Your task to perform on an android device: Search for good BBQ restaurants Image 0: 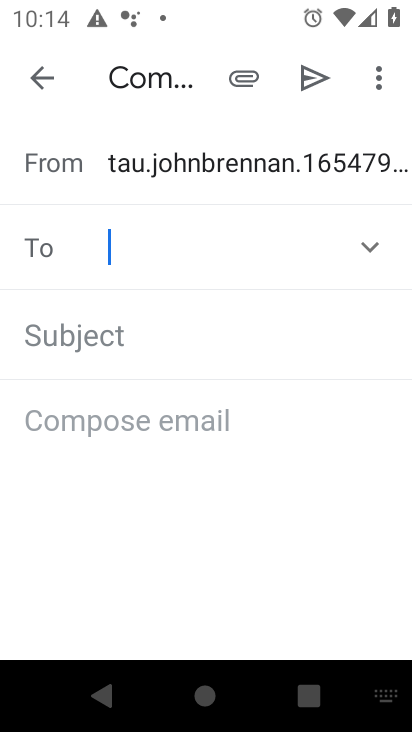
Step 0: press home button
Your task to perform on an android device: Search for good BBQ restaurants Image 1: 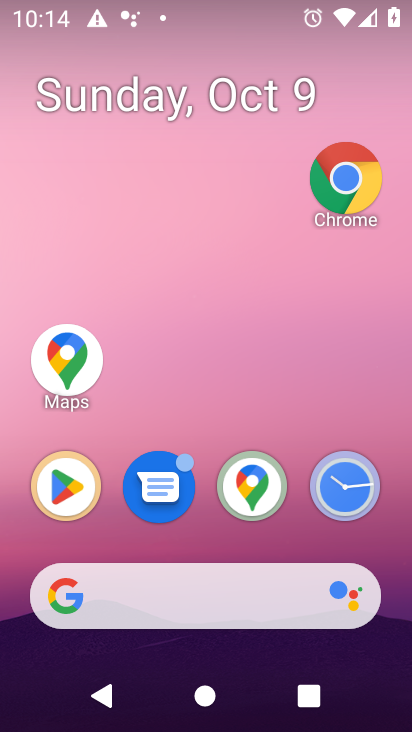
Step 1: drag from (396, 717) to (166, 729)
Your task to perform on an android device: Search for good BBQ restaurants Image 2: 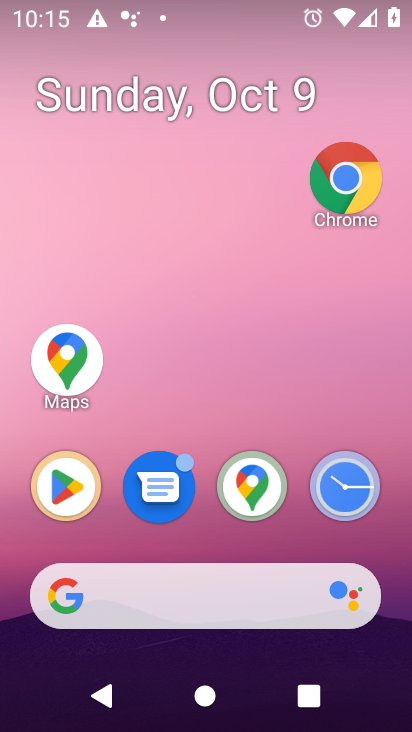
Step 2: drag from (289, 537) to (351, 83)
Your task to perform on an android device: Search for good BBQ restaurants Image 3: 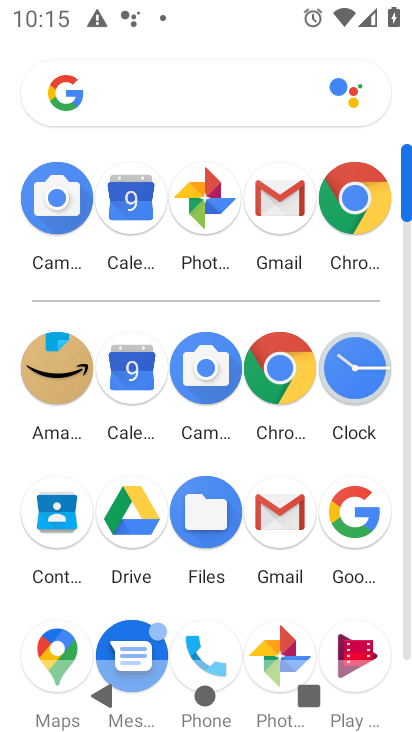
Step 3: drag from (302, 515) to (342, 313)
Your task to perform on an android device: Search for good BBQ restaurants Image 4: 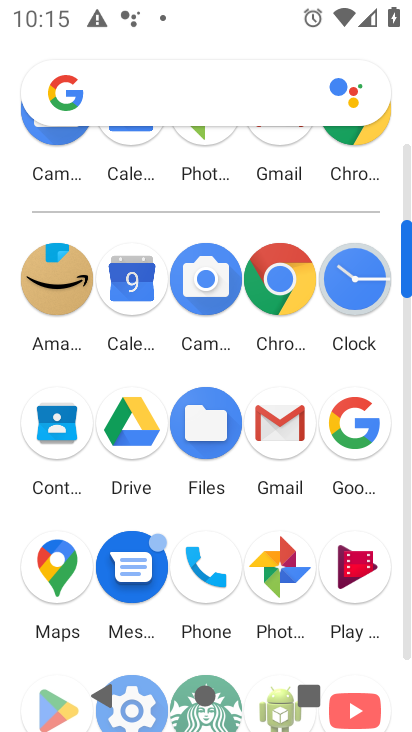
Step 4: click (364, 421)
Your task to perform on an android device: Search for good BBQ restaurants Image 5: 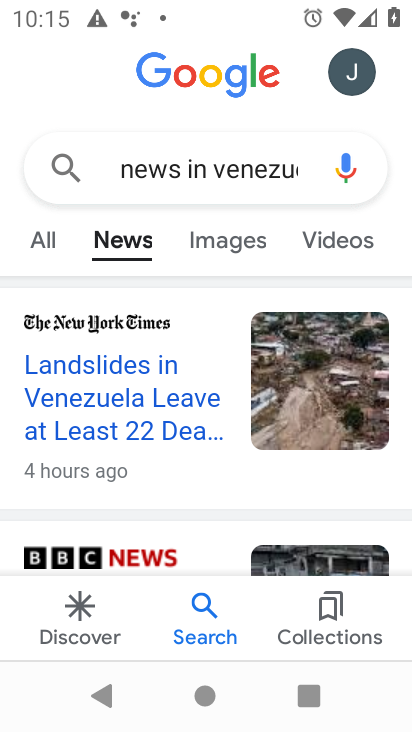
Step 5: click (264, 181)
Your task to perform on an android device: Search for good BBQ restaurants Image 6: 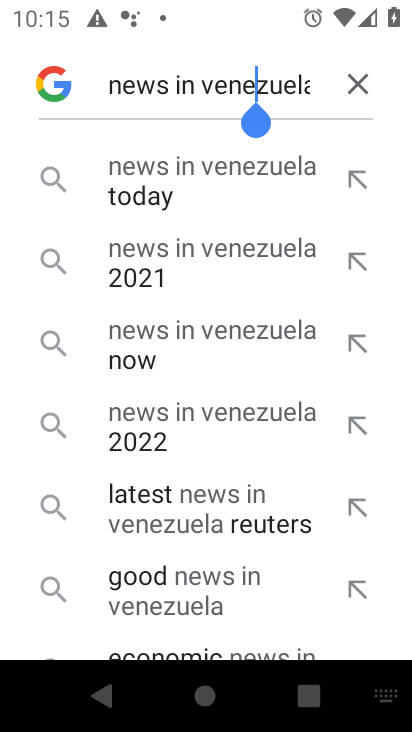
Step 6: click (364, 91)
Your task to perform on an android device: Search for good BBQ restaurants Image 7: 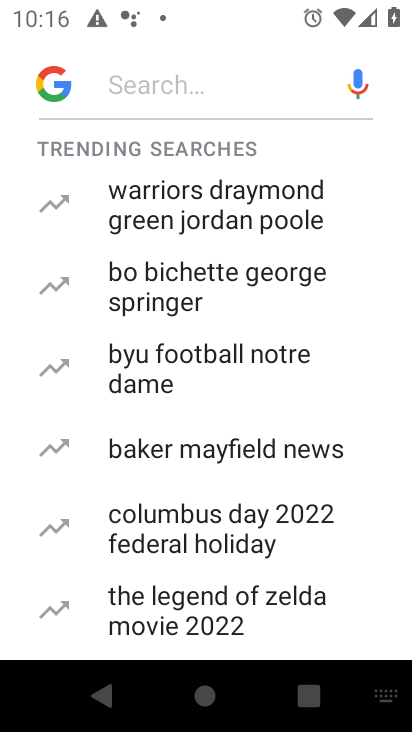
Step 7: type "good BBQ restaurants"
Your task to perform on an android device: Search for good BBQ restaurants Image 8: 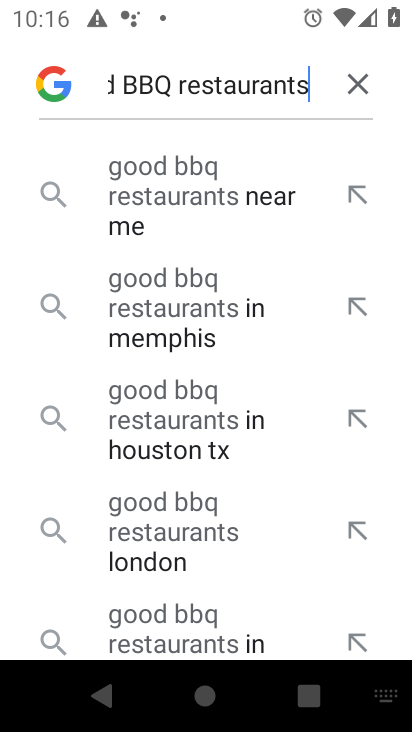
Step 8: click (177, 182)
Your task to perform on an android device: Search for good BBQ restaurants Image 9: 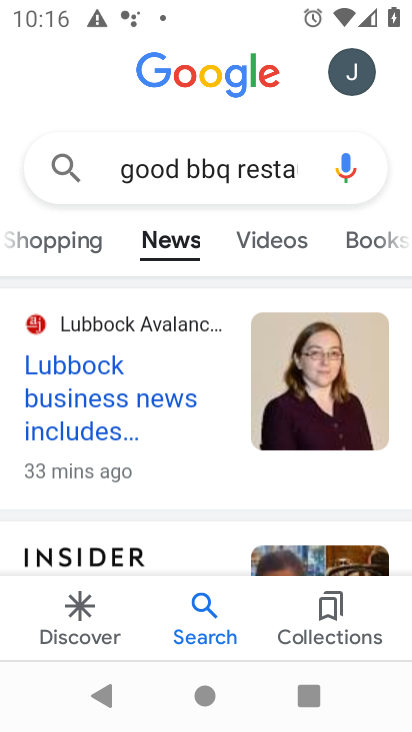
Step 9: drag from (70, 246) to (409, 297)
Your task to perform on an android device: Search for good BBQ restaurants Image 10: 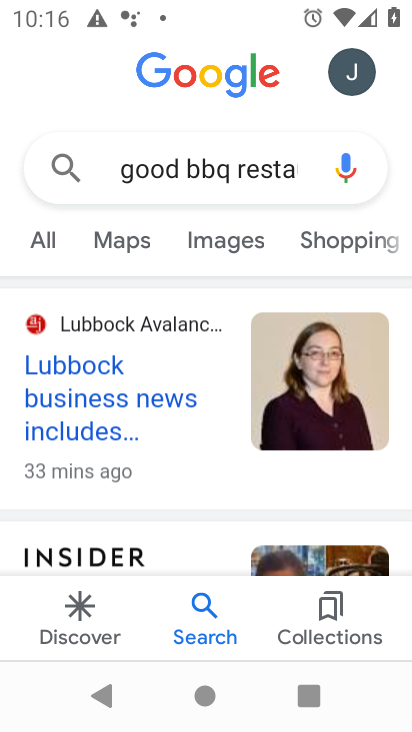
Step 10: click (36, 238)
Your task to perform on an android device: Search for good BBQ restaurants Image 11: 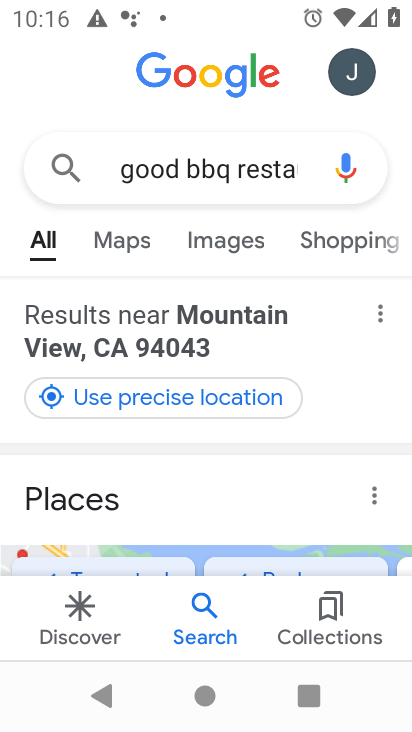
Step 11: task complete